Your task to perform on an android device: change timer sound Image 0: 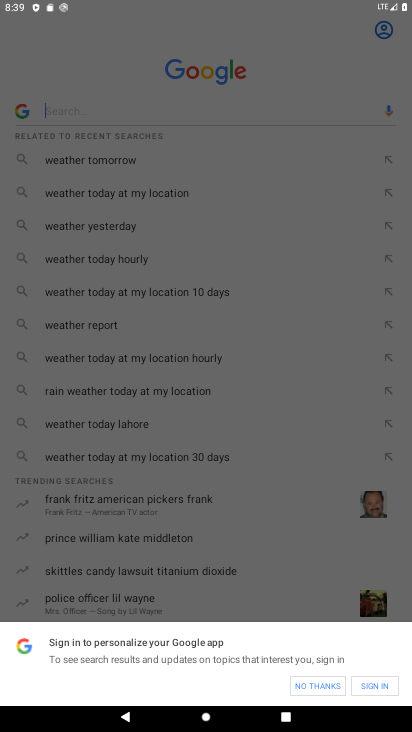
Step 0: press back button
Your task to perform on an android device: change timer sound Image 1: 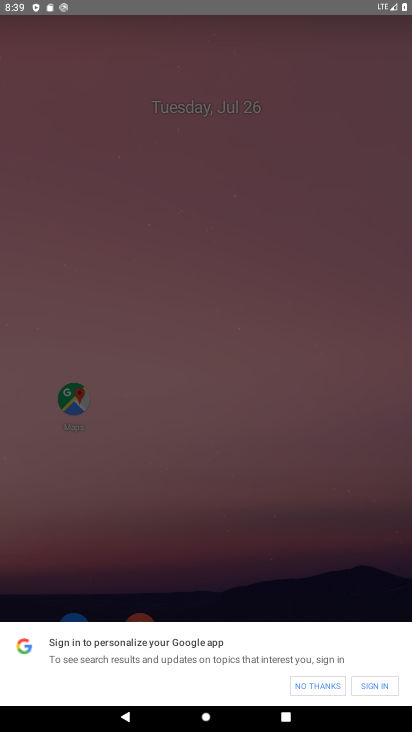
Step 1: click (266, 437)
Your task to perform on an android device: change timer sound Image 2: 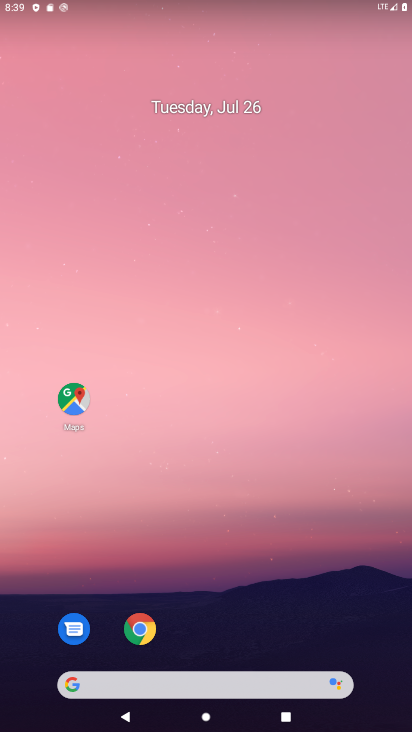
Step 2: drag from (183, 664) to (201, 158)
Your task to perform on an android device: change timer sound Image 3: 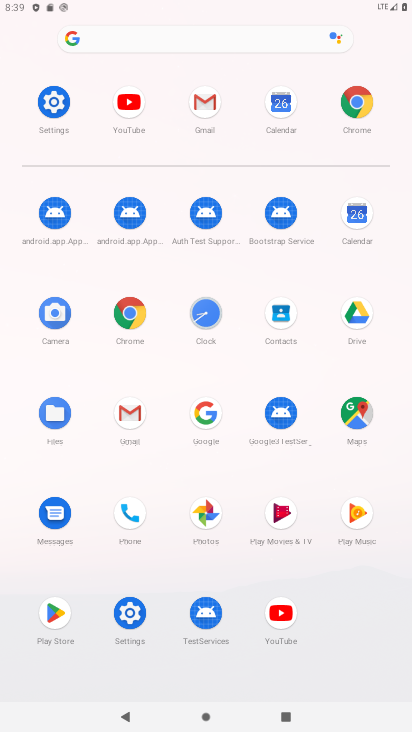
Step 3: click (203, 311)
Your task to perform on an android device: change timer sound Image 4: 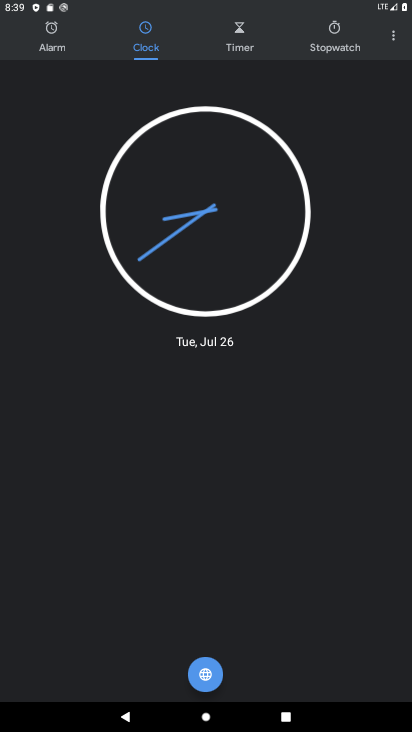
Step 4: drag from (388, 38) to (325, 65)
Your task to perform on an android device: change timer sound Image 5: 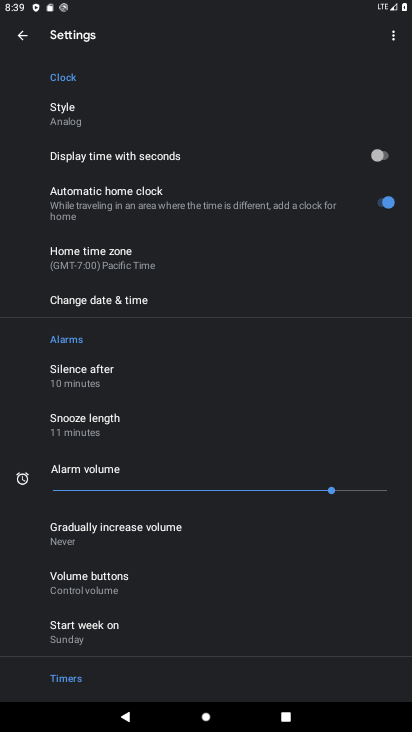
Step 5: drag from (134, 469) to (116, 77)
Your task to perform on an android device: change timer sound Image 6: 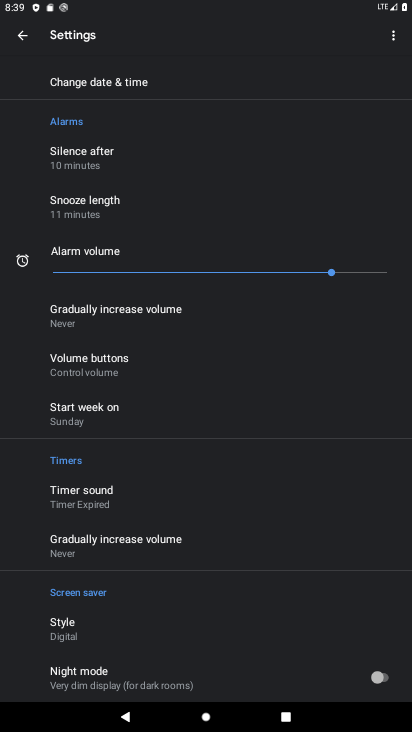
Step 6: click (117, 501)
Your task to perform on an android device: change timer sound Image 7: 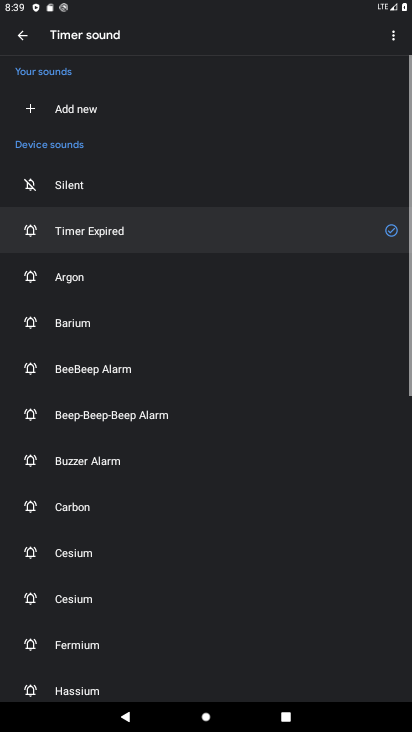
Step 7: click (76, 277)
Your task to perform on an android device: change timer sound Image 8: 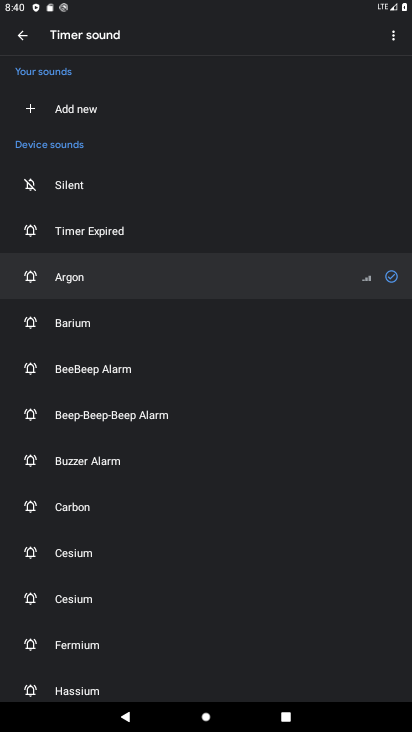
Step 8: task complete